Your task to perform on an android device: turn pop-ups on in chrome Image 0: 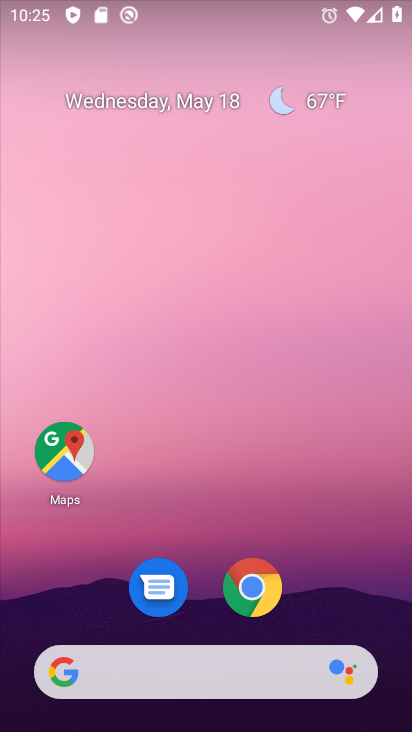
Step 0: click (245, 585)
Your task to perform on an android device: turn pop-ups on in chrome Image 1: 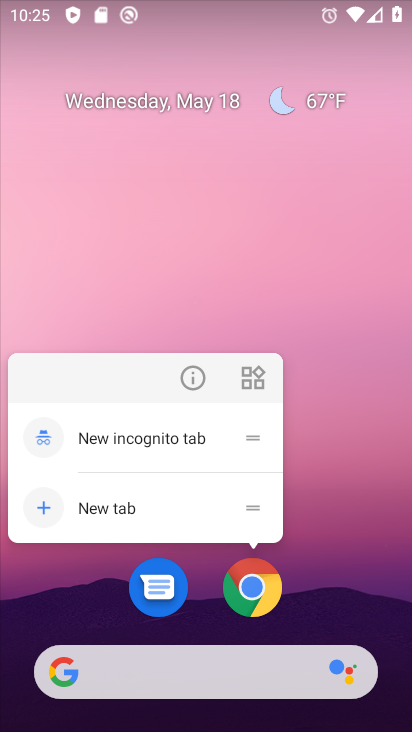
Step 1: click (246, 585)
Your task to perform on an android device: turn pop-ups on in chrome Image 2: 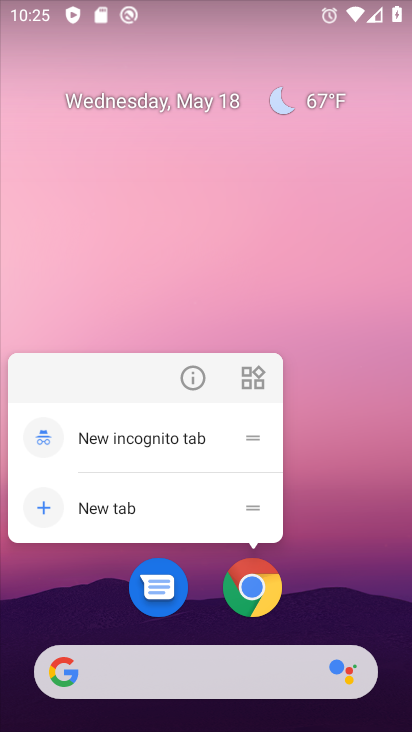
Step 2: click (246, 584)
Your task to perform on an android device: turn pop-ups on in chrome Image 3: 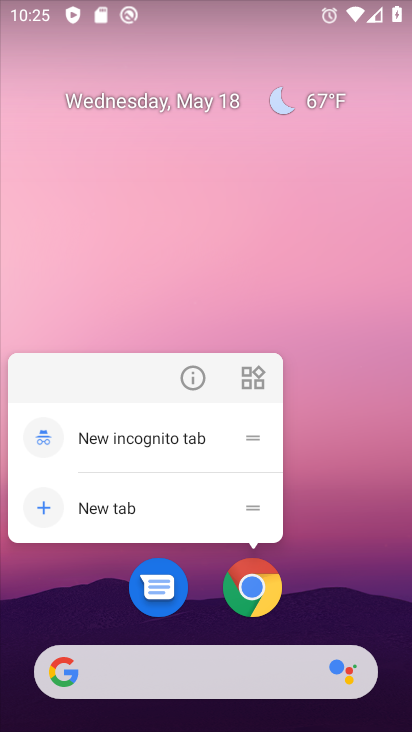
Step 3: click (248, 578)
Your task to perform on an android device: turn pop-ups on in chrome Image 4: 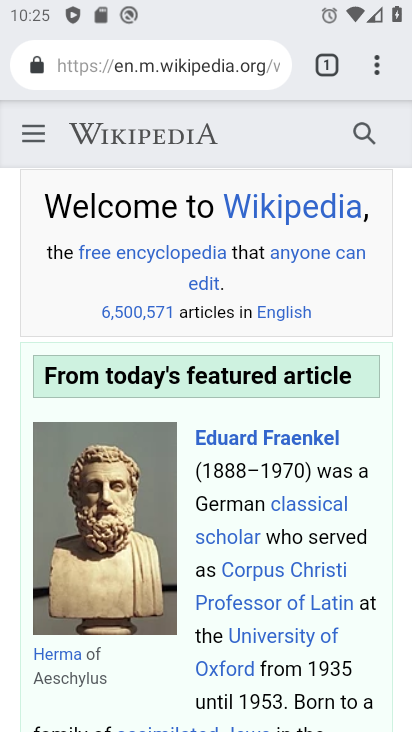
Step 4: click (383, 55)
Your task to perform on an android device: turn pop-ups on in chrome Image 5: 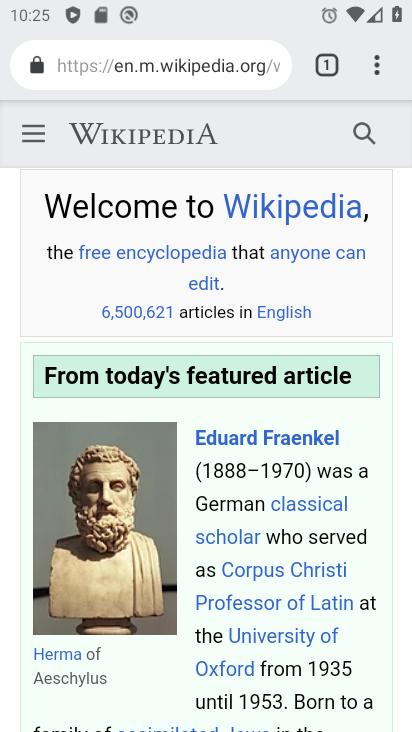
Step 5: click (381, 56)
Your task to perform on an android device: turn pop-ups on in chrome Image 6: 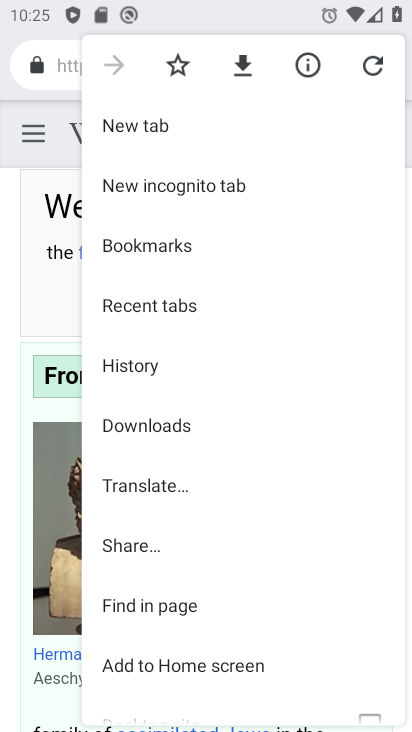
Step 6: drag from (312, 534) to (314, 126)
Your task to perform on an android device: turn pop-ups on in chrome Image 7: 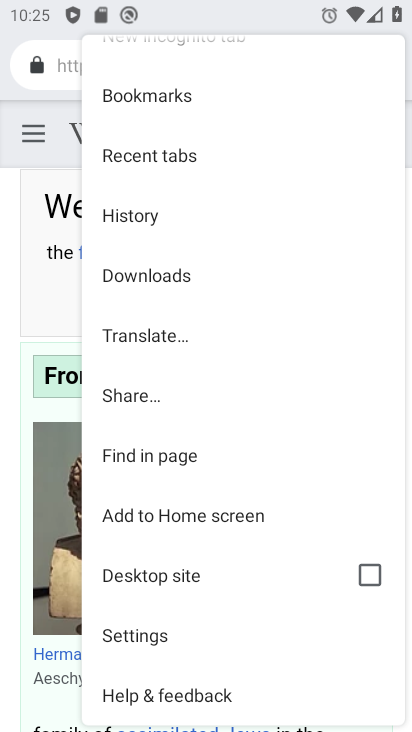
Step 7: click (215, 625)
Your task to perform on an android device: turn pop-ups on in chrome Image 8: 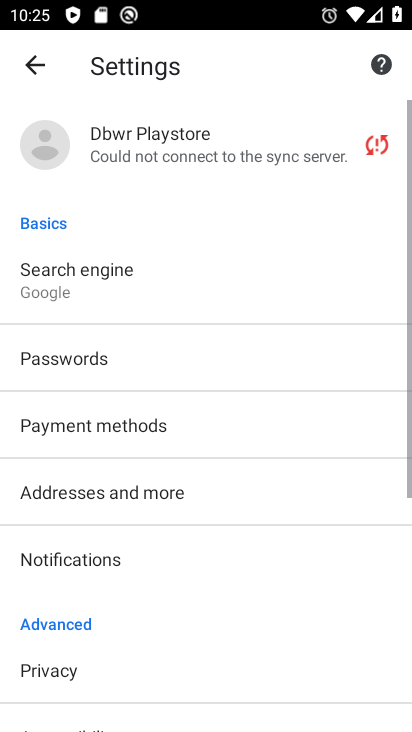
Step 8: drag from (210, 586) to (244, 185)
Your task to perform on an android device: turn pop-ups on in chrome Image 9: 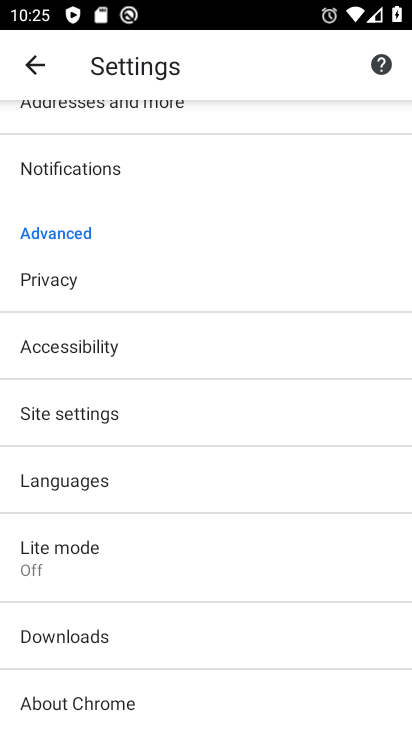
Step 9: drag from (166, 536) to (224, 199)
Your task to perform on an android device: turn pop-ups on in chrome Image 10: 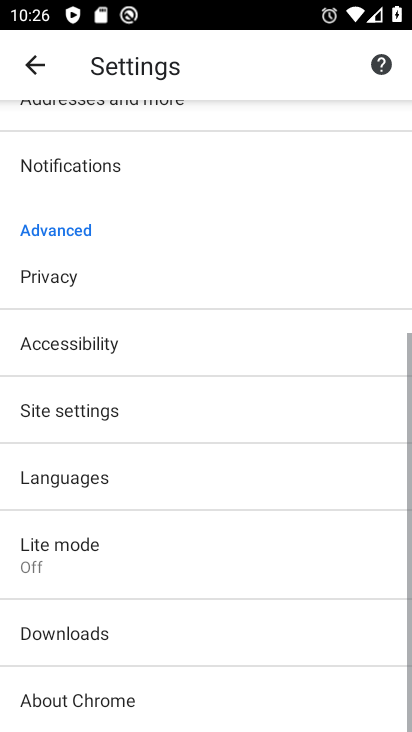
Step 10: click (145, 394)
Your task to perform on an android device: turn pop-ups on in chrome Image 11: 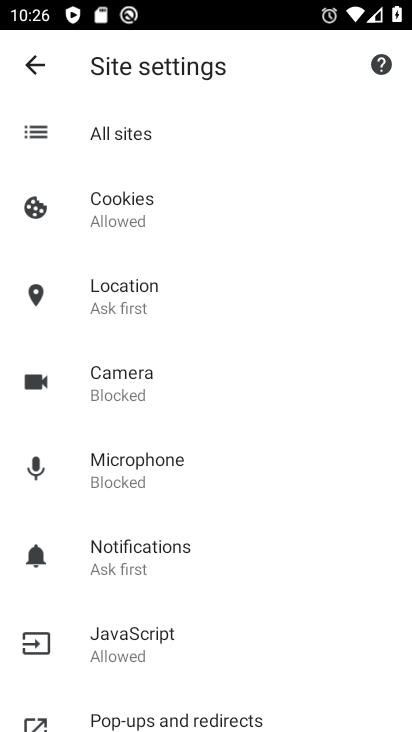
Step 11: drag from (236, 573) to (295, 252)
Your task to perform on an android device: turn pop-ups on in chrome Image 12: 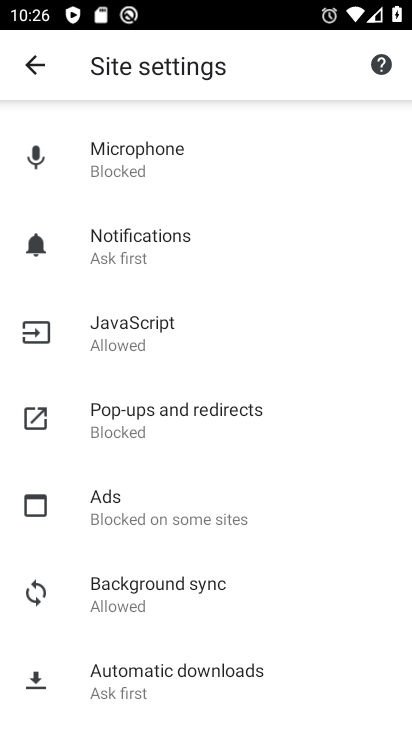
Step 12: click (207, 392)
Your task to perform on an android device: turn pop-ups on in chrome Image 13: 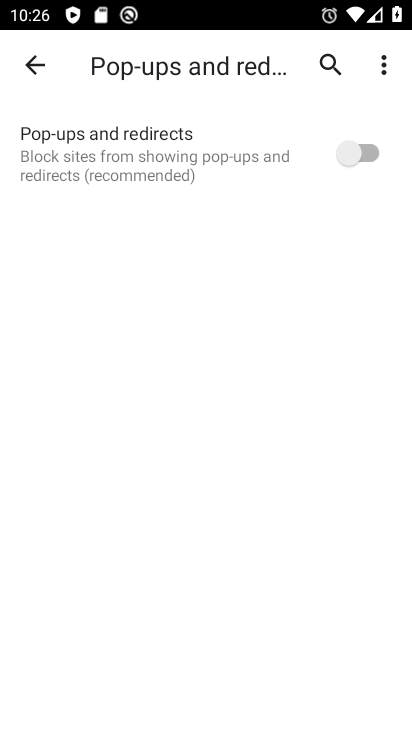
Step 13: click (358, 142)
Your task to perform on an android device: turn pop-ups on in chrome Image 14: 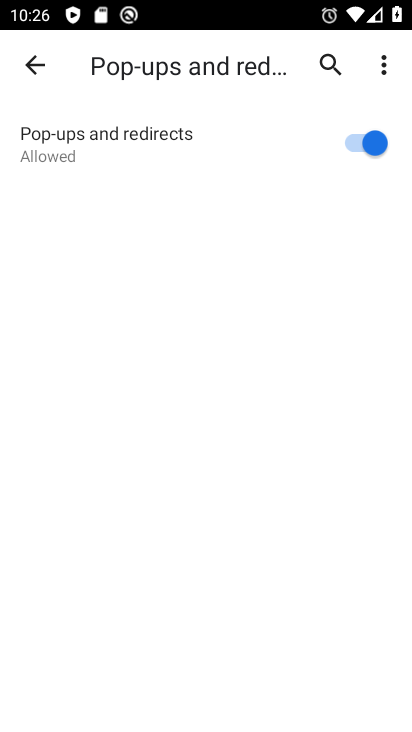
Step 14: task complete